Your task to perform on an android device: open a bookmark in the chrome app Image 0: 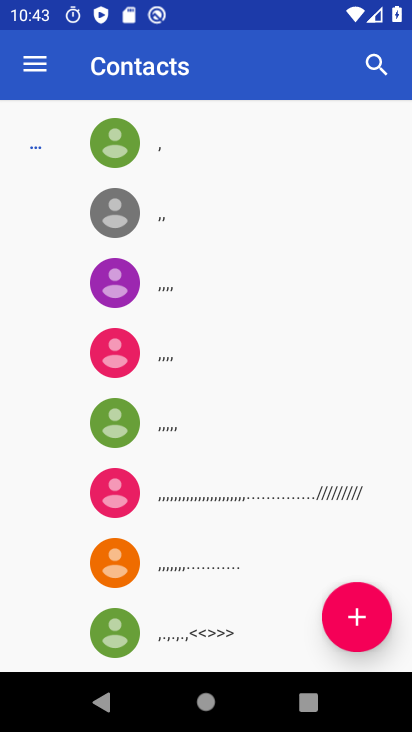
Step 0: press home button
Your task to perform on an android device: open a bookmark in the chrome app Image 1: 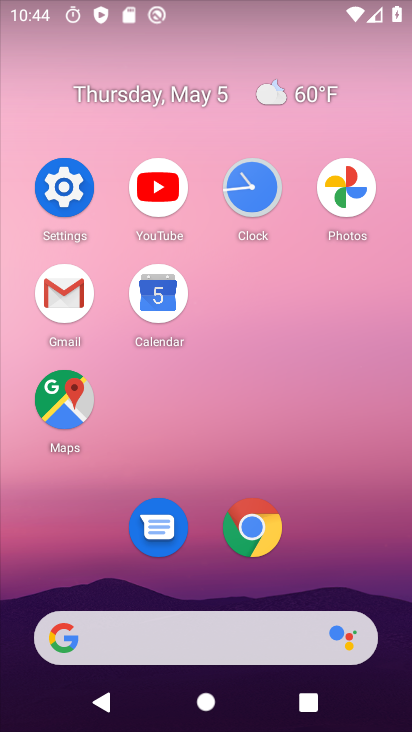
Step 1: click (233, 530)
Your task to perform on an android device: open a bookmark in the chrome app Image 2: 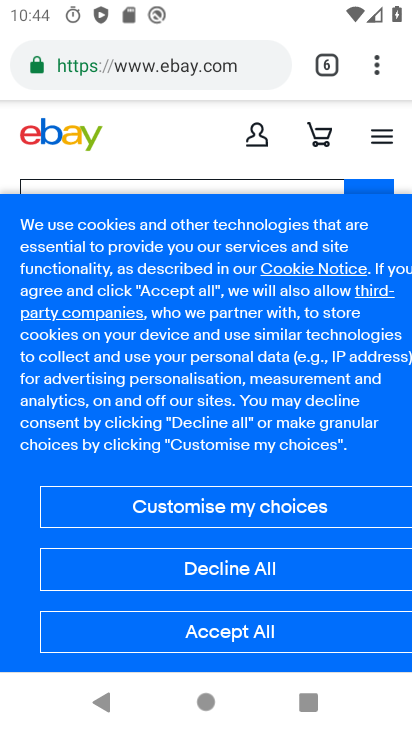
Step 2: click (382, 64)
Your task to perform on an android device: open a bookmark in the chrome app Image 3: 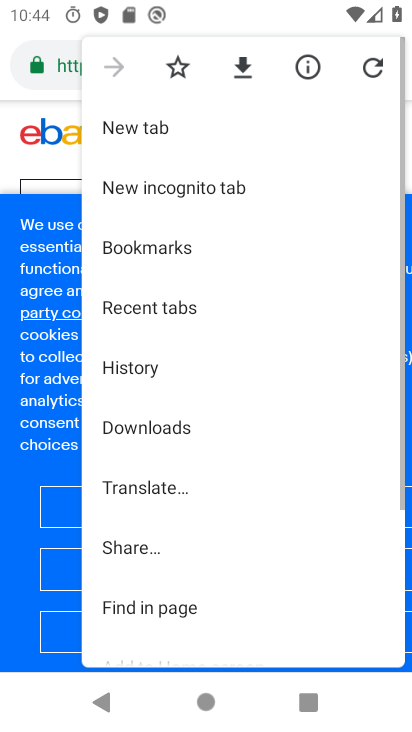
Step 3: click (128, 250)
Your task to perform on an android device: open a bookmark in the chrome app Image 4: 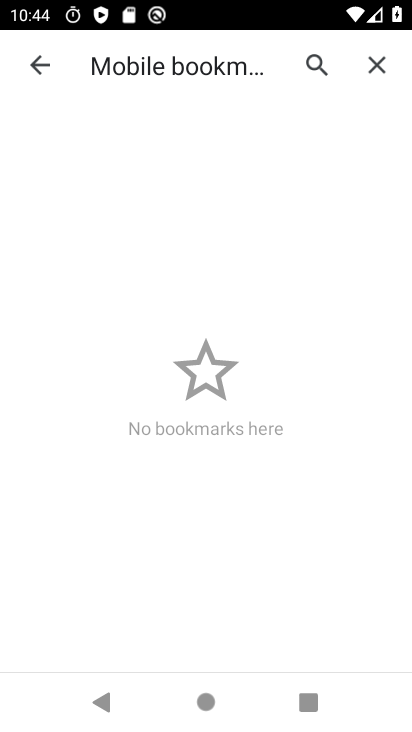
Step 4: task complete